Your task to perform on an android device: Set the phone to "Do not disturb". Image 0: 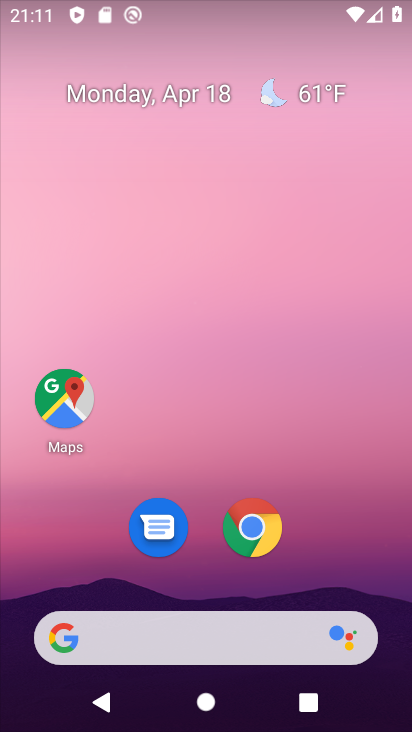
Step 0: drag from (236, 20) to (237, 682)
Your task to perform on an android device: Set the phone to "Do not disturb". Image 1: 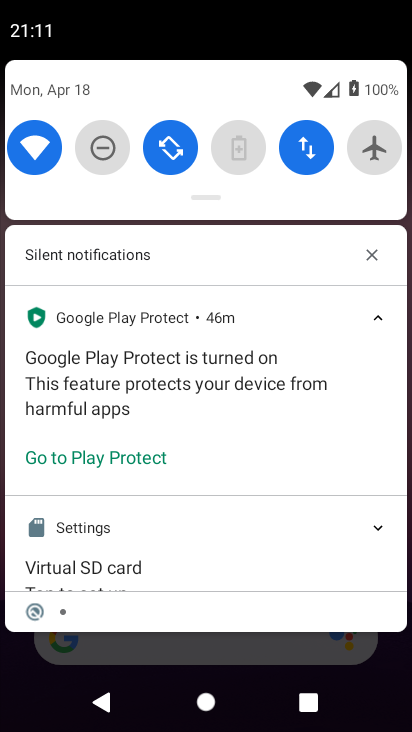
Step 1: click (102, 154)
Your task to perform on an android device: Set the phone to "Do not disturb". Image 2: 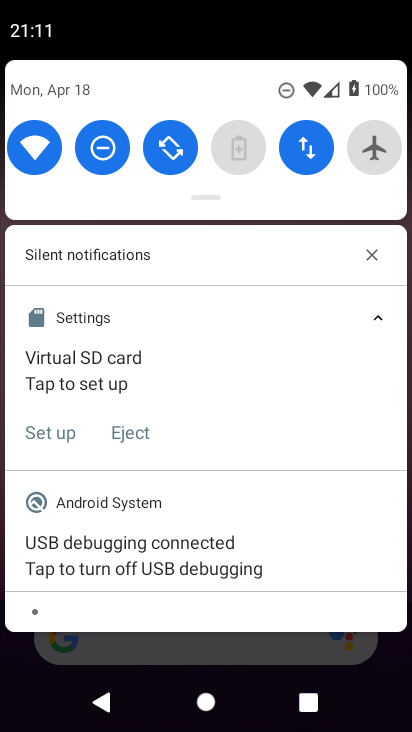
Step 2: task complete